Your task to perform on an android device: Clear the shopping cart on target.com. Search for usb-b on target.com, select the first entry, and add it to the cart. Image 0: 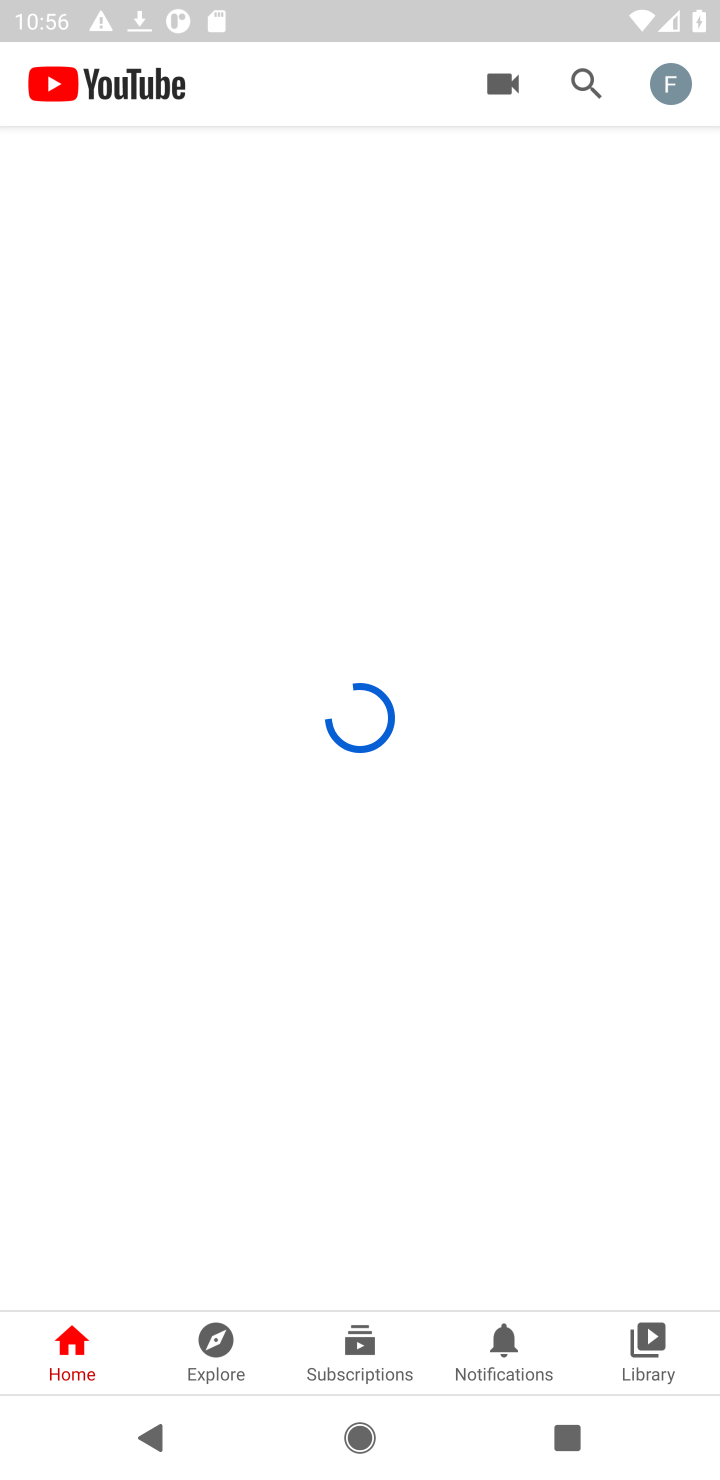
Step 0: press home button
Your task to perform on an android device: Clear the shopping cart on target.com. Search for usb-b on target.com, select the first entry, and add it to the cart. Image 1: 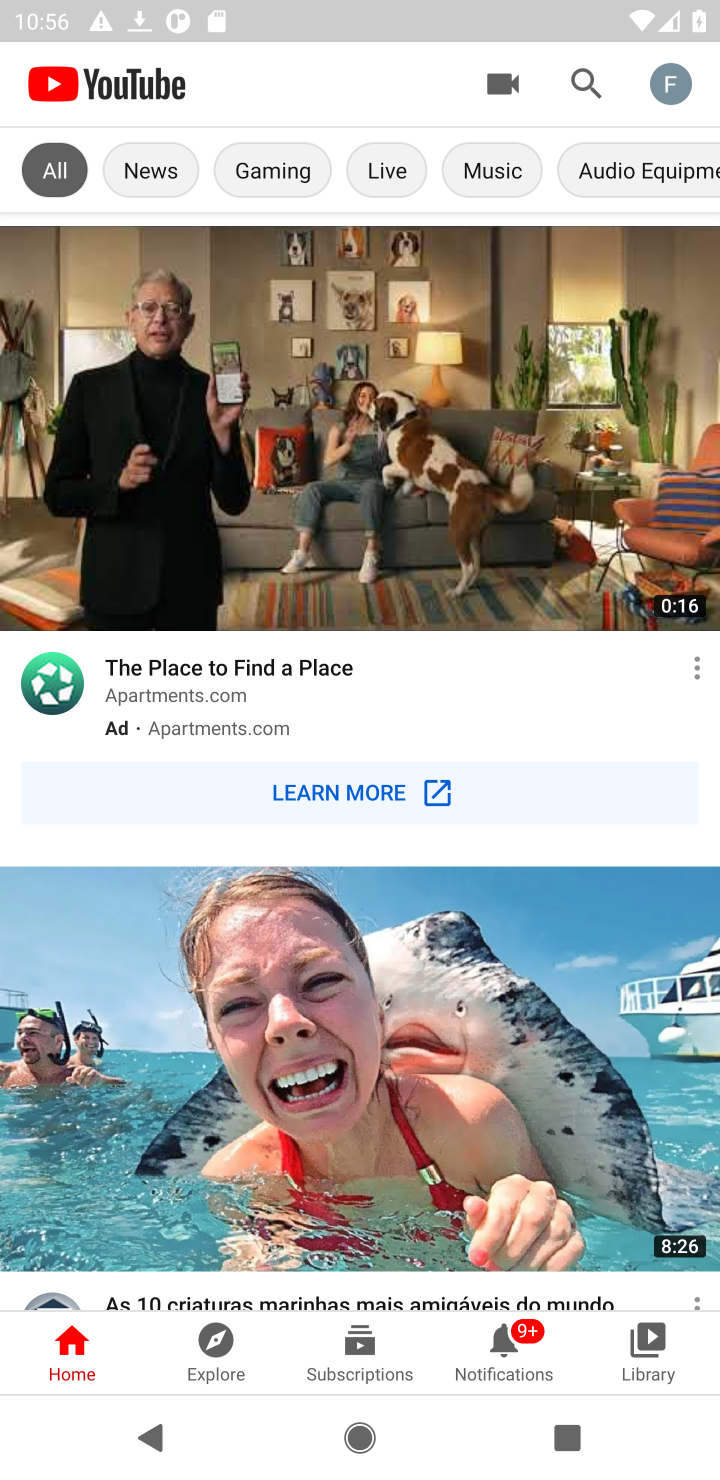
Step 1: press home button
Your task to perform on an android device: Clear the shopping cart on target.com. Search for usb-b on target.com, select the first entry, and add it to the cart. Image 2: 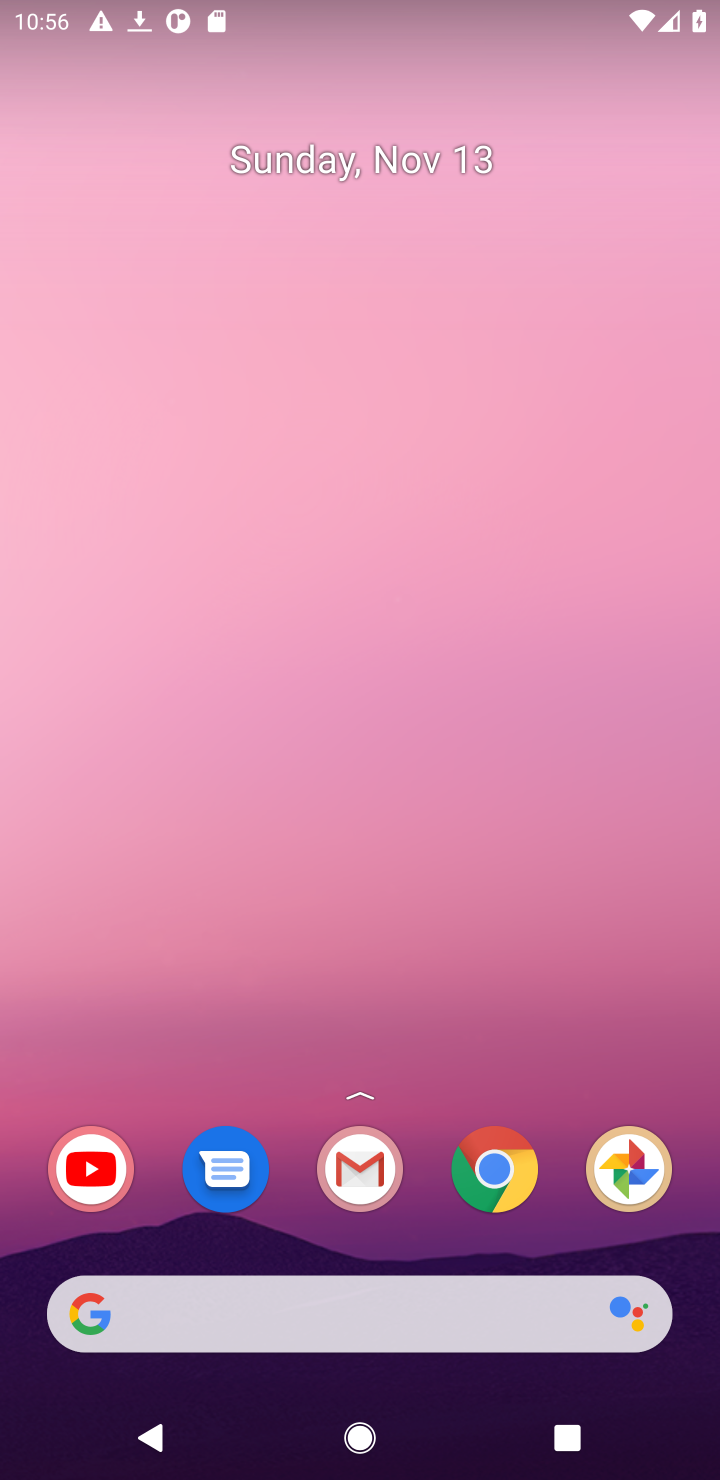
Step 2: drag from (433, 1256) to (438, 226)
Your task to perform on an android device: Clear the shopping cart on target.com. Search for usb-b on target.com, select the first entry, and add it to the cart. Image 3: 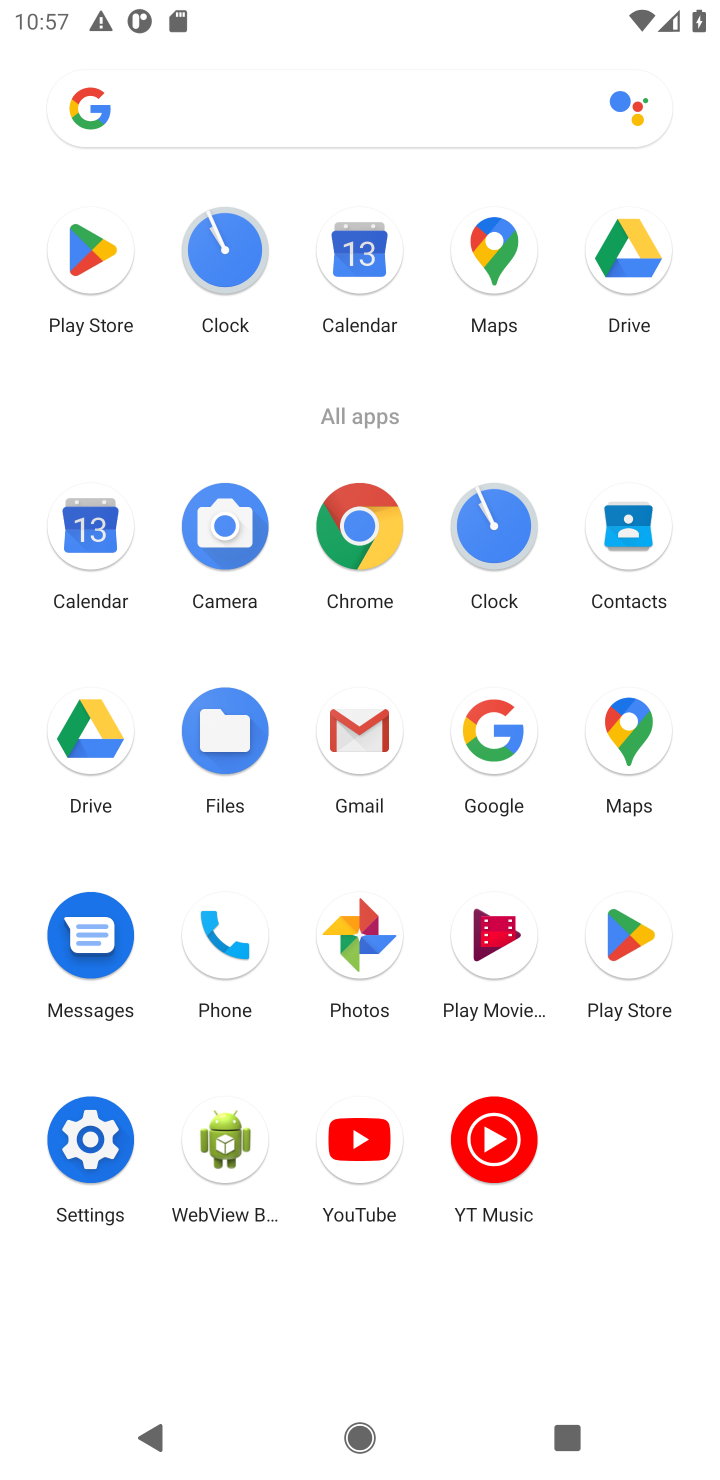
Step 3: click (366, 533)
Your task to perform on an android device: Clear the shopping cart on target.com. Search for usb-b on target.com, select the first entry, and add it to the cart. Image 4: 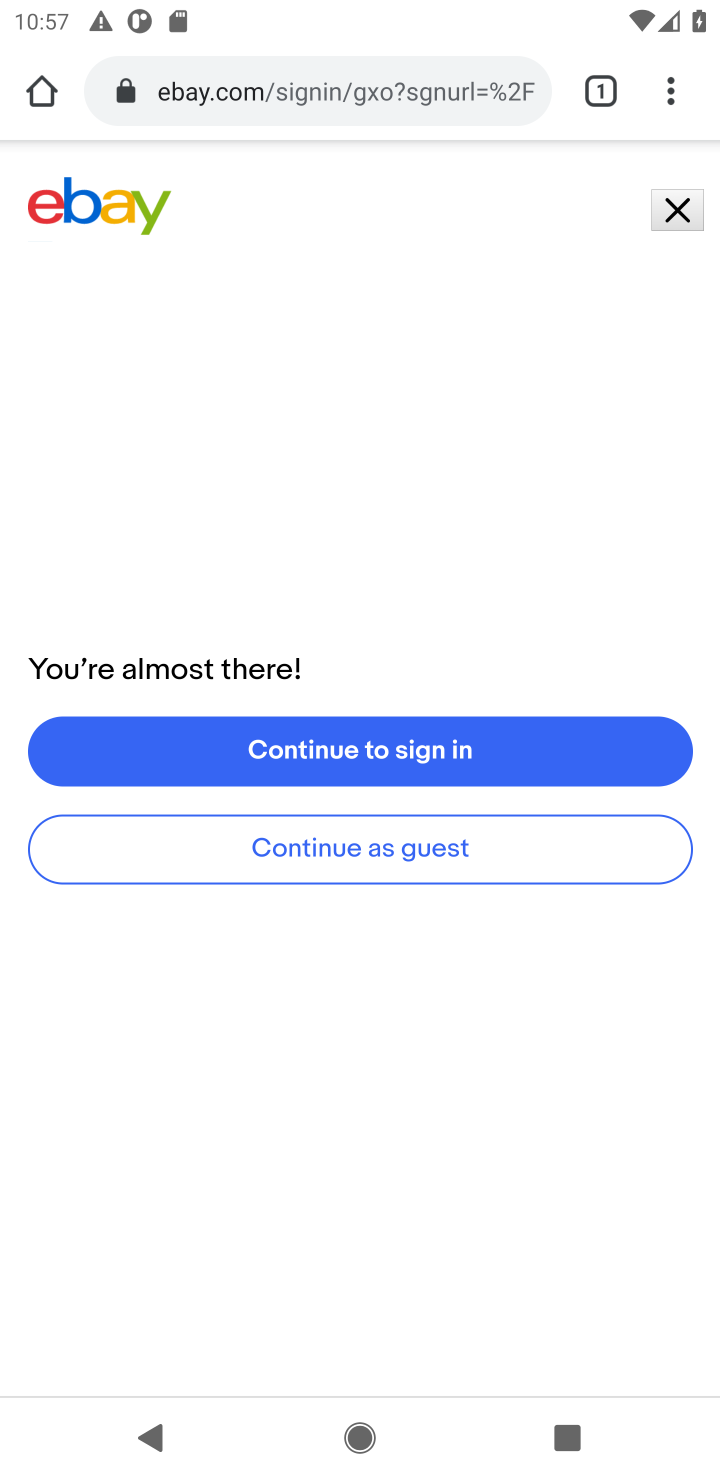
Step 4: click (320, 109)
Your task to perform on an android device: Clear the shopping cart on target.com. Search for usb-b on target.com, select the first entry, and add it to the cart. Image 5: 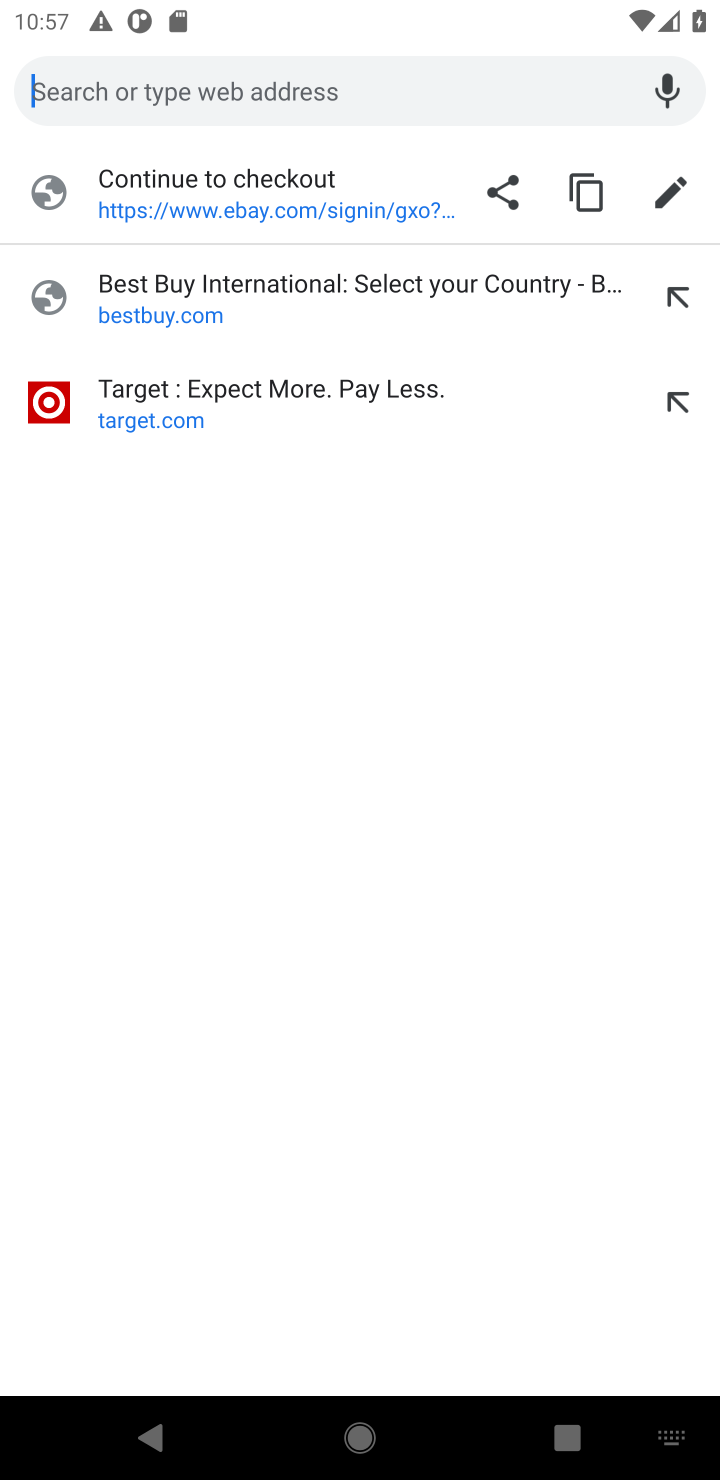
Step 5: type "target.com"
Your task to perform on an android device: Clear the shopping cart on target.com. Search for usb-b on target.com, select the first entry, and add it to the cart. Image 6: 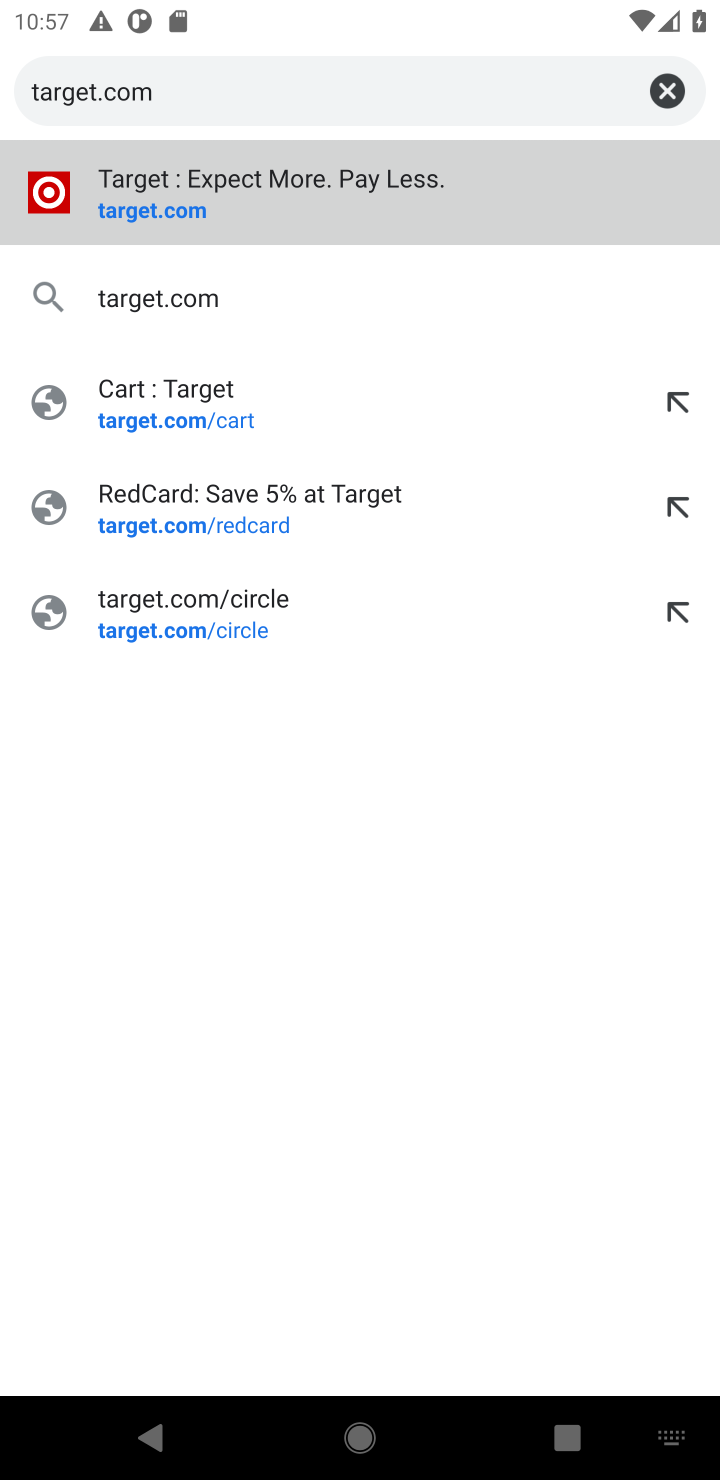
Step 6: press enter
Your task to perform on an android device: Clear the shopping cart on target.com. Search for usb-b on target.com, select the first entry, and add it to the cart. Image 7: 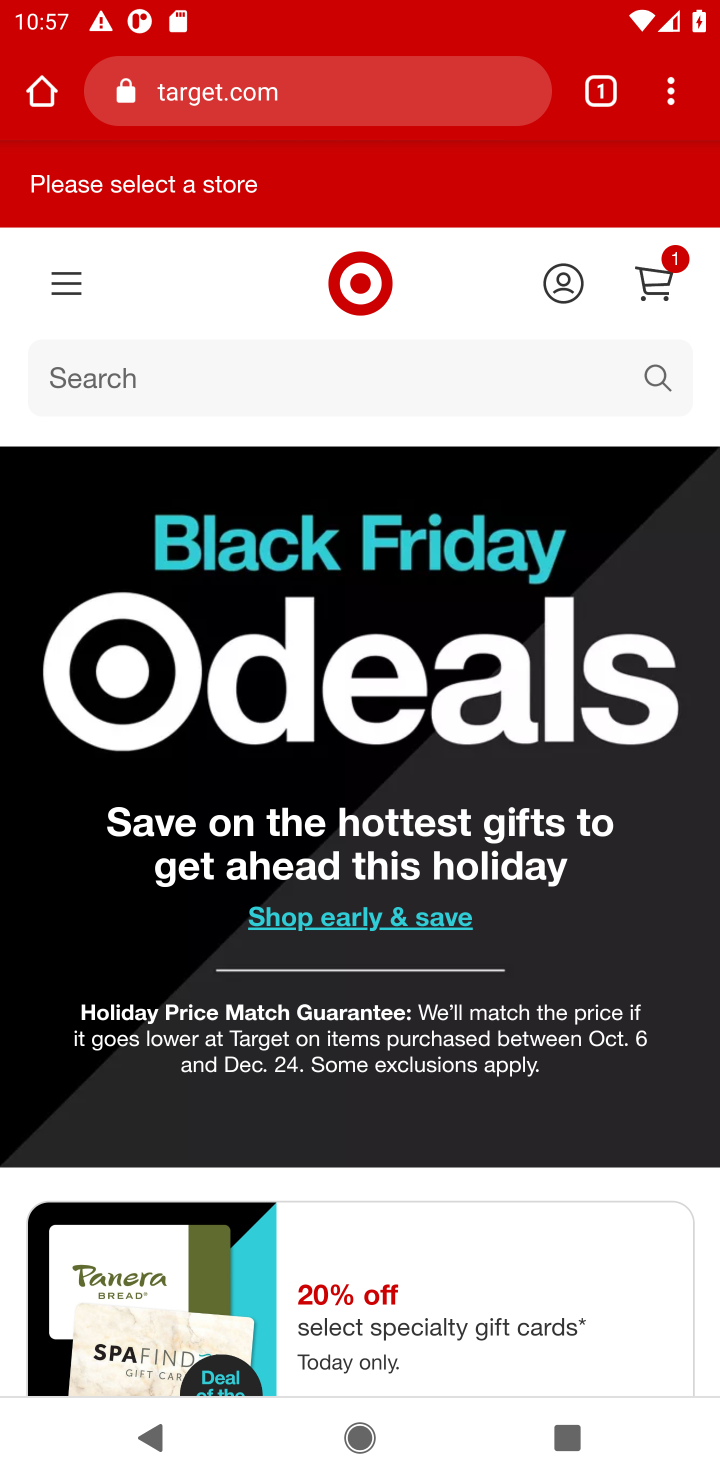
Step 7: click (643, 277)
Your task to perform on an android device: Clear the shopping cart on target.com. Search for usb-b on target.com, select the first entry, and add it to the cart. Image 8: 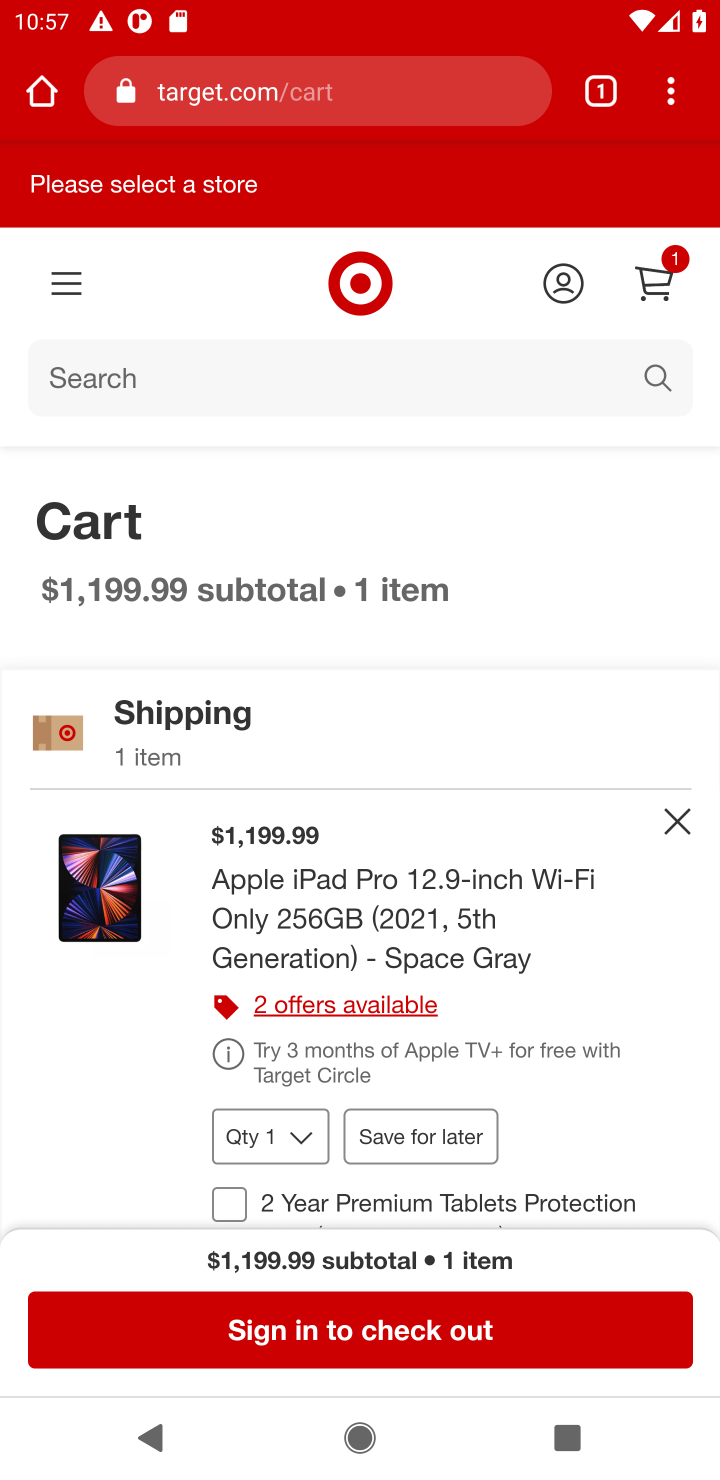
Step 8: click (678, 825)
Your task to perform on an android device: Clear the shopping cart on target.com. Search for usb-b on target.com, select the first entry, and add it to the cart. Image 9: 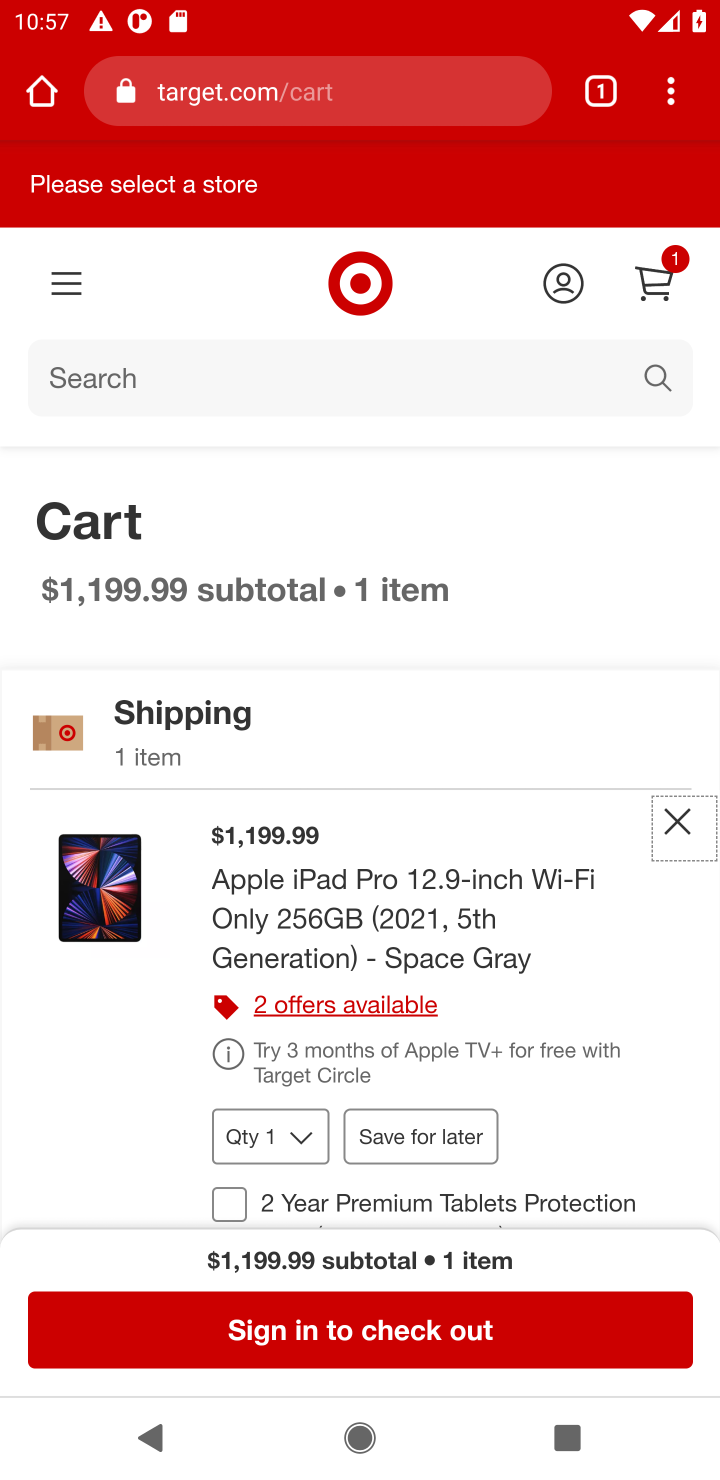
Step 9: click (678, 825)
Your task to perform on an android device: Clear the shopping cart on target.com. Search for usb-b on target.com, select the first entry, and add it to the cart. Image 10: 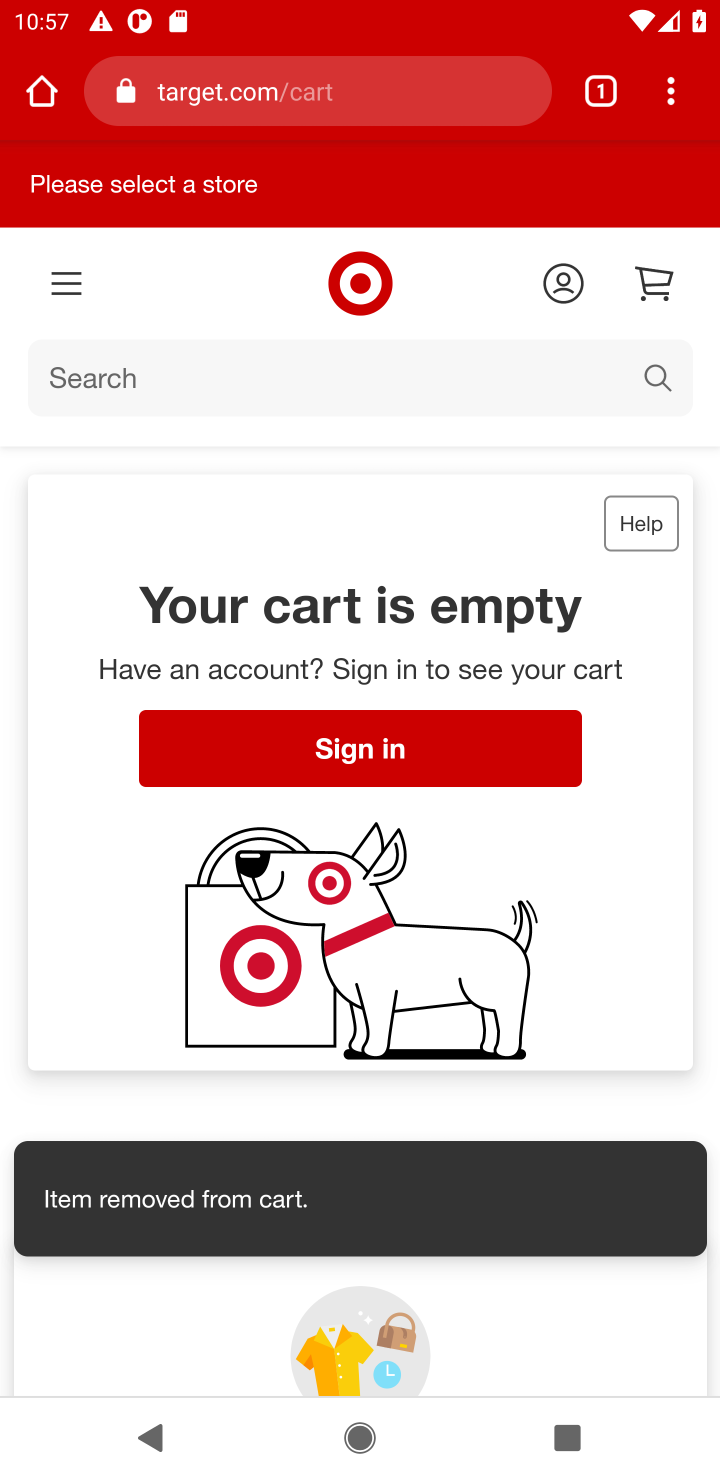
Step 10: click (455, 381)
Your task to perform on an android device: Clear the shopping cart on target.com. Search for usb-b on target.com, select the first entry, and add it to the cart. Image 11: 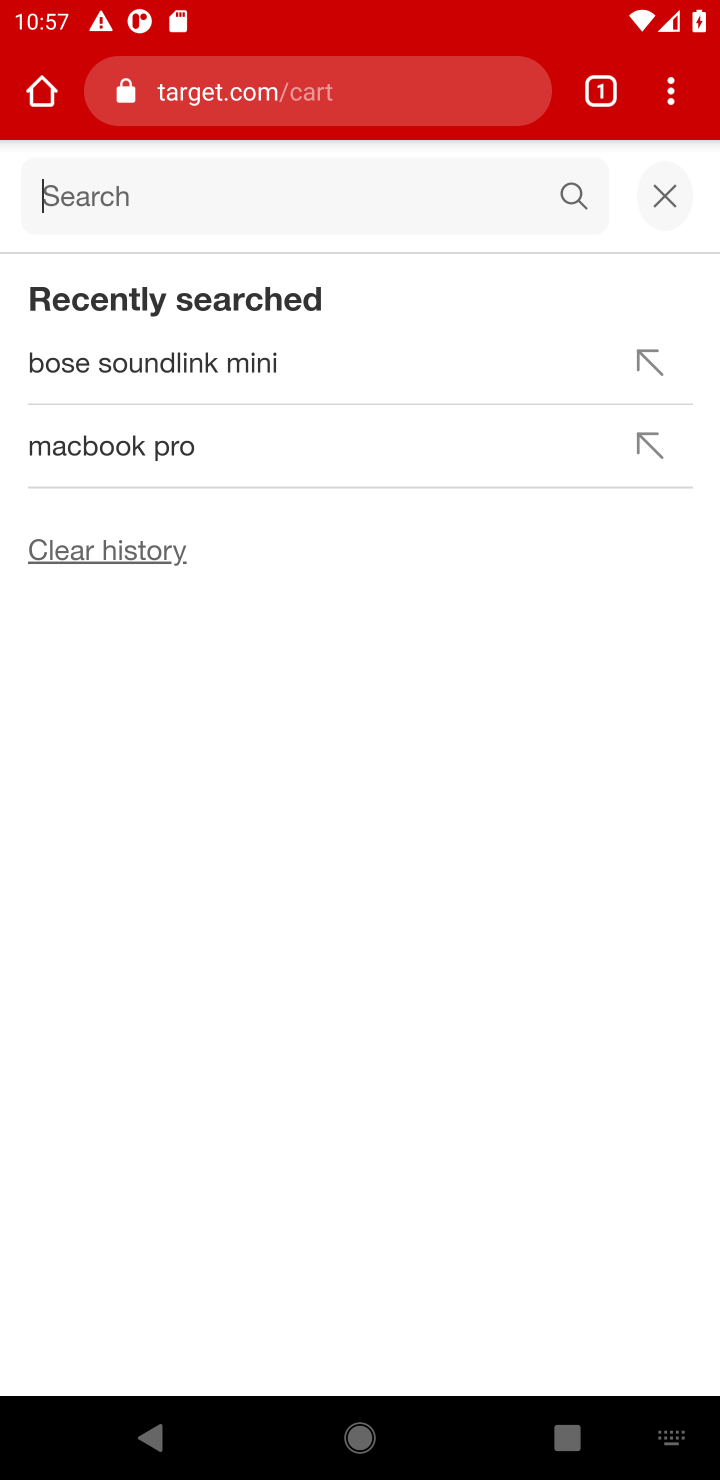
Step 11: type "usb-b"
Your task to perform on an android device: Clear the shopping cart on target.com. Search for usb-b on target.com, select the first entry, and add it to the cart. Image 12: 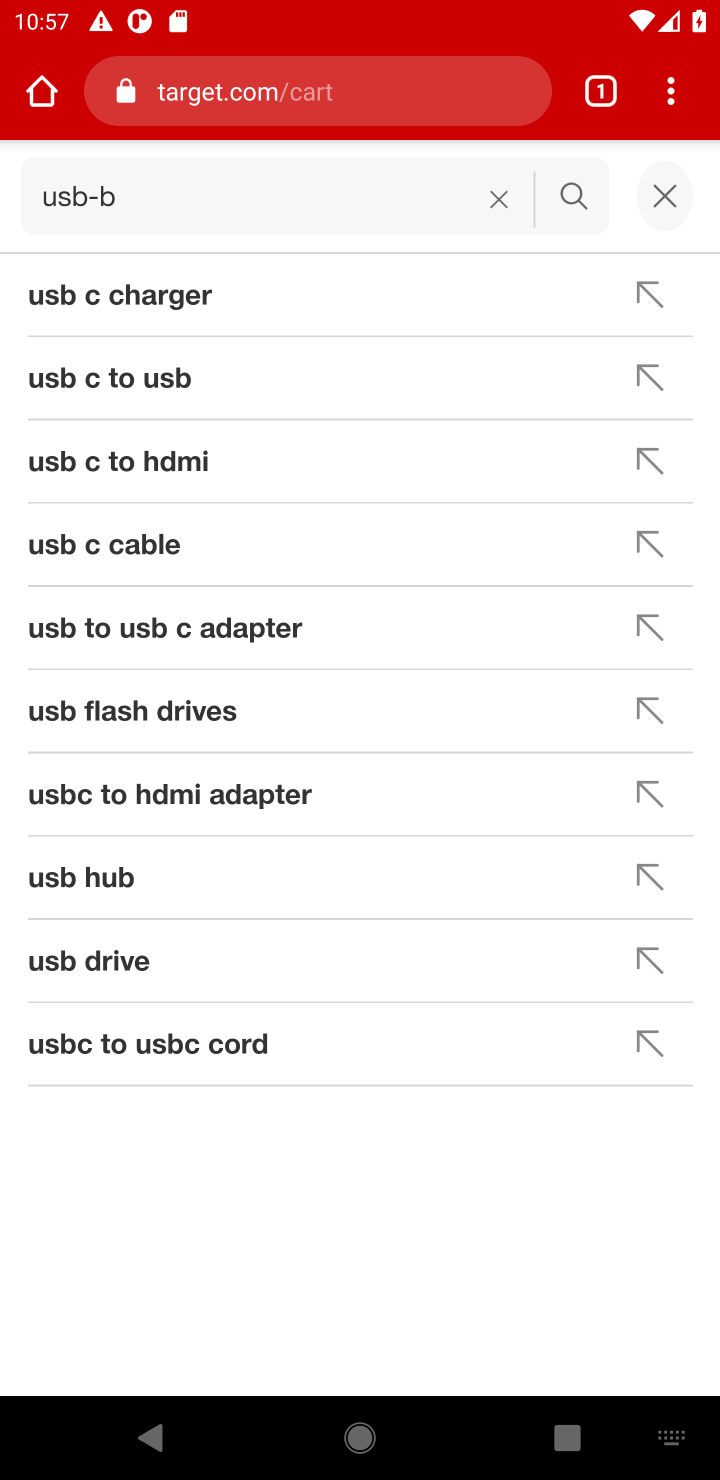
Step 12: press enter
Your task to perform on an android device: Clear the shopping cart on target.com. Search for usb-b on target.com, select the first entry, and add it to the cart. Image 13: 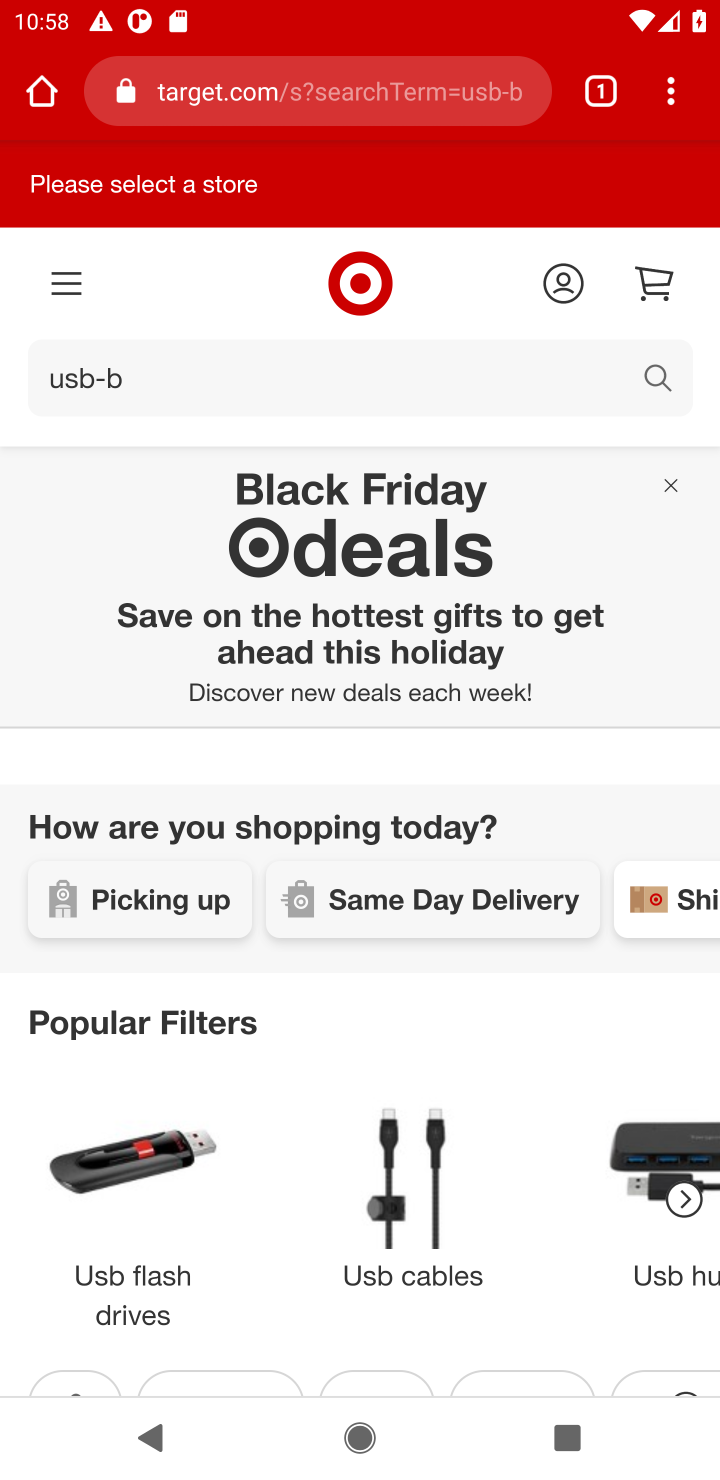
Step 13: drag from (428, 1225) to (496, 277)
Your task to perform on an android device: Clear the shopping cart on target.com. Search for usb-b on target.com, select the first entry, and add it to the cart. Image 14: 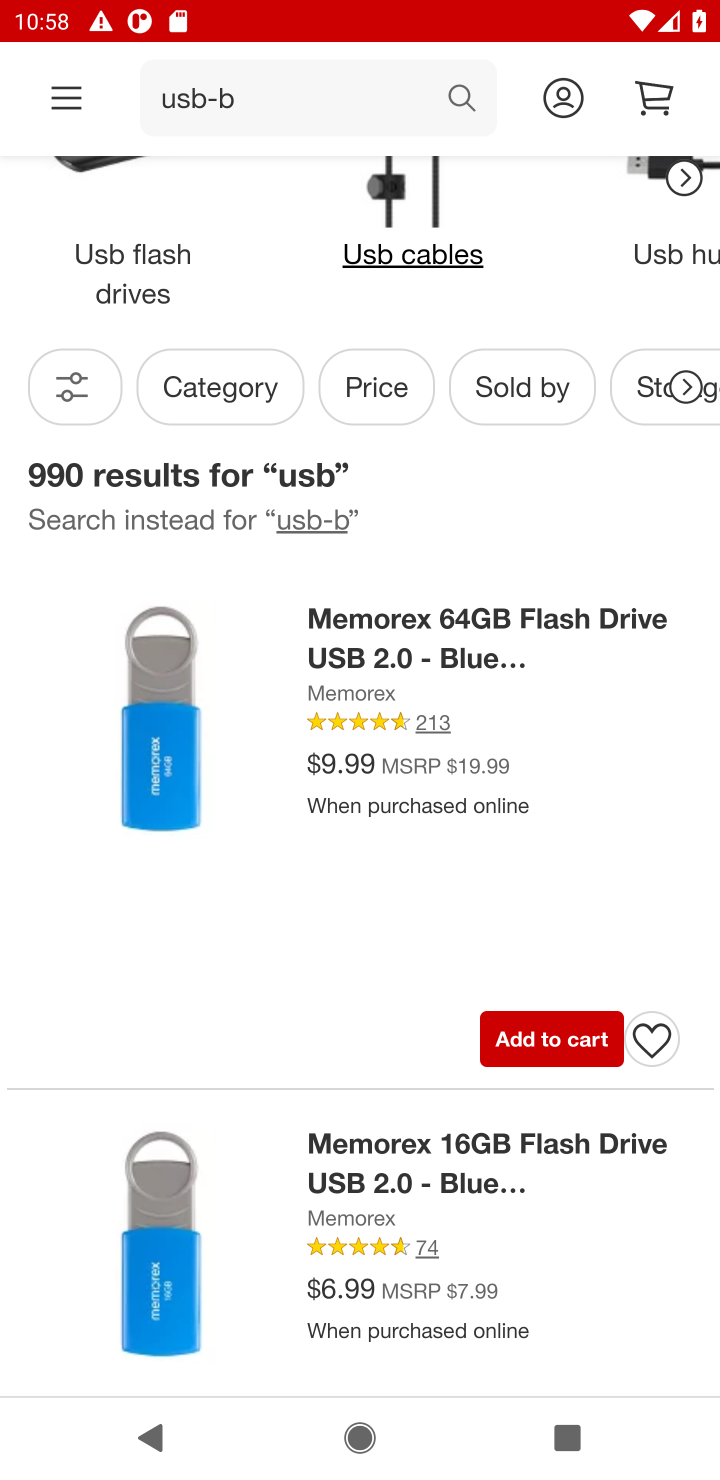
Step 14: drag from (337, 1069) to (530, 236)
Your task to perform on an android device: Clear the shopping cart on target.com. Search for usb-b on target.com, select the first entry, and add it to the cart. Image 15: 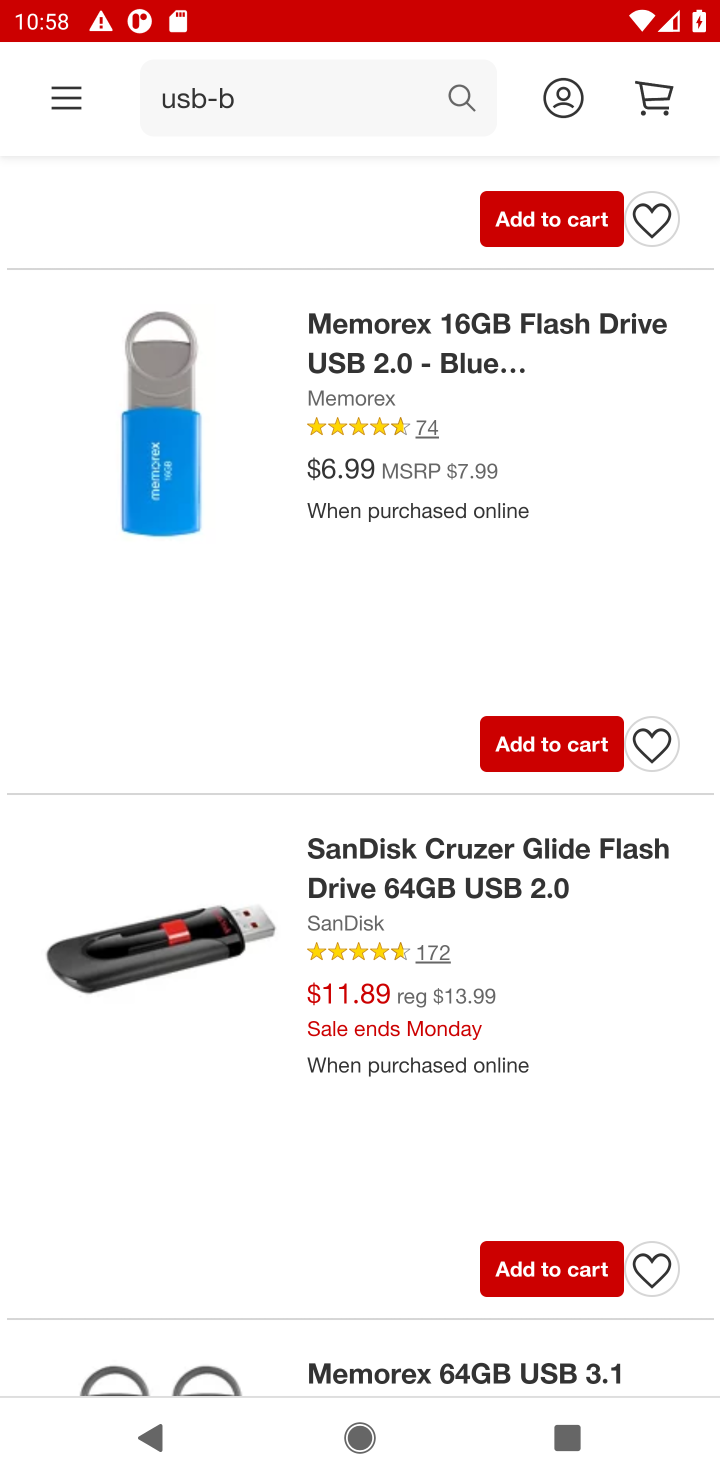
Step 15: drag from (486, 1075) to (129, 1345)
Your task to perform on an android device: Clear the shopping cart on target.com. Search for usb-b on target.com, select the first entry, and add it to the cart. Image 16: 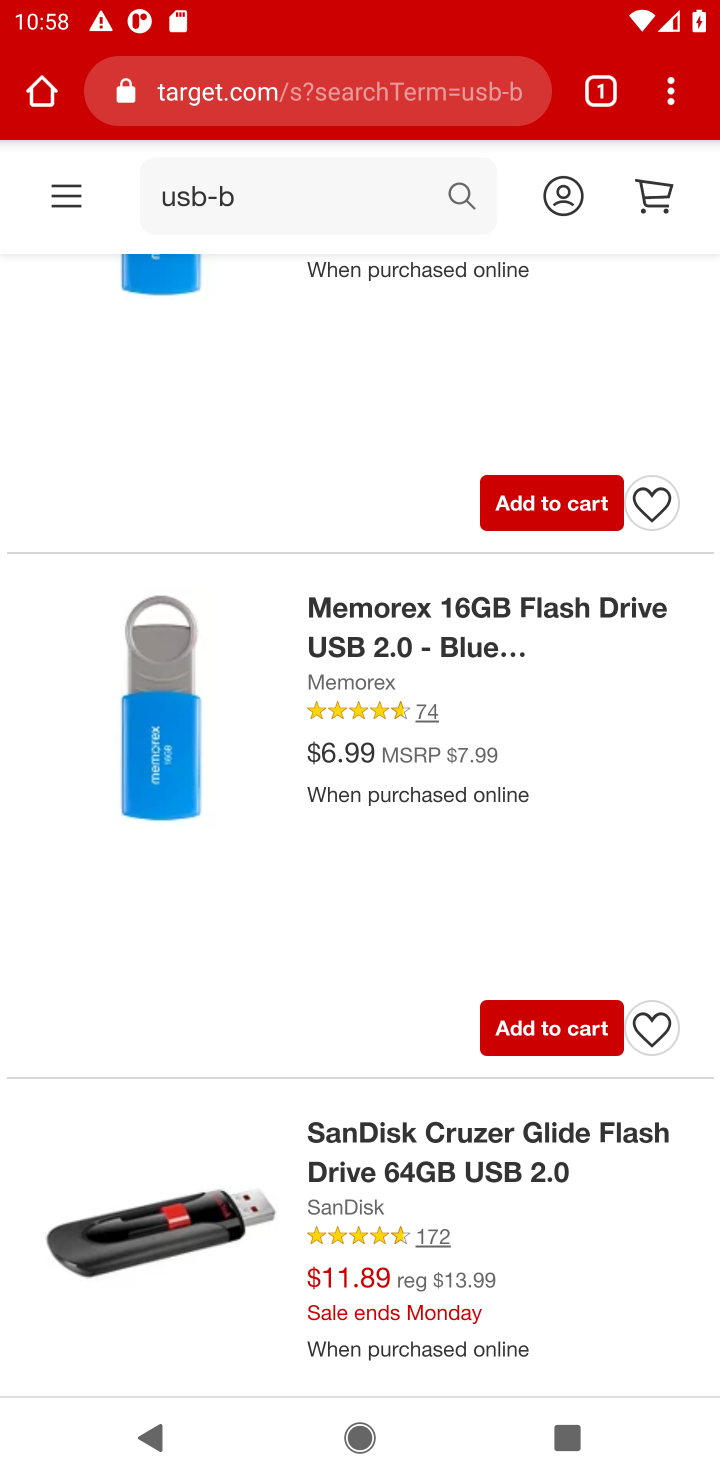
Step 16: drag from (324, 479) to (165, 1124)
Your task to perform on an android device: Clear the shopping cart on target.com. Search for usb-b on target.com, select the first entry, and add it to the cart. Image 17: 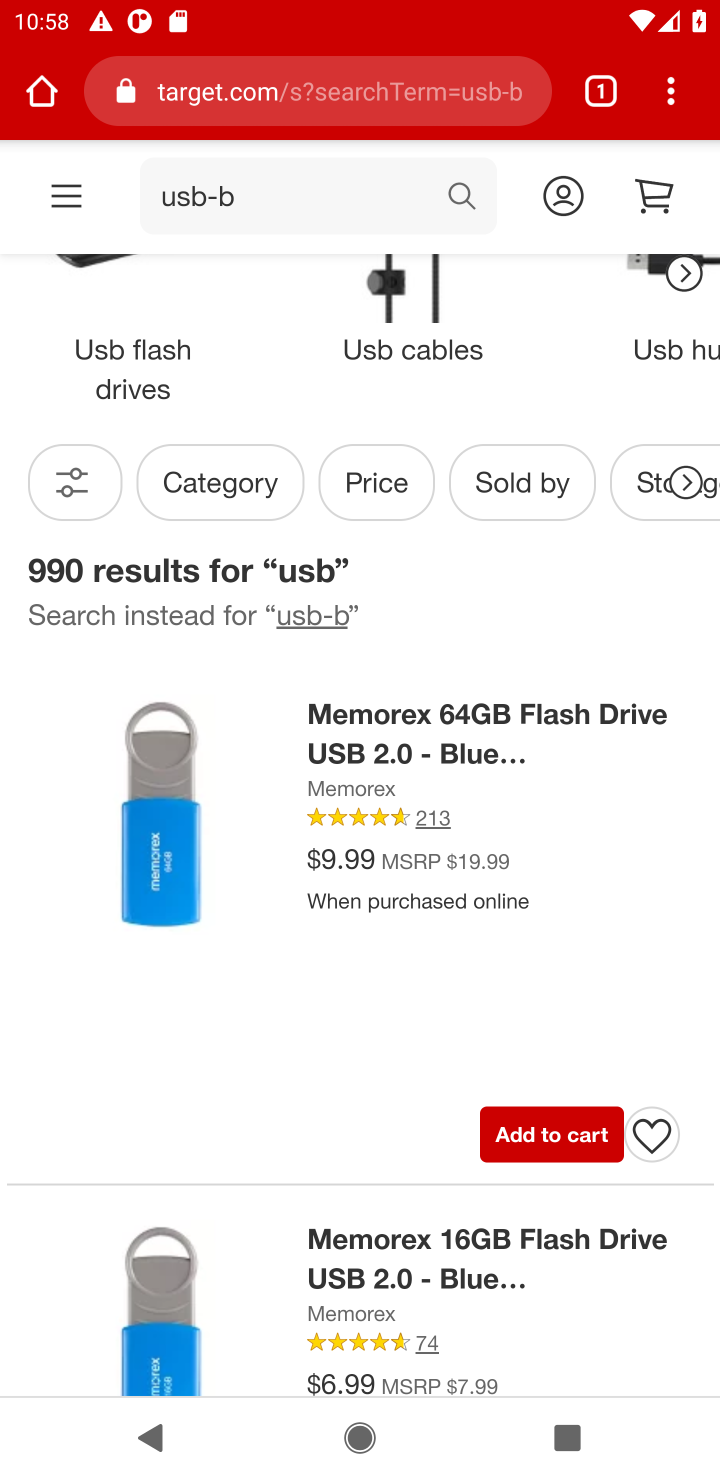
Step 17: click (423, 752)
Your task to perform on an android device: Clear the shopping cart on target.com. Search for usb-b on target.com, select the first entry, and add it to the cart. Image 18: 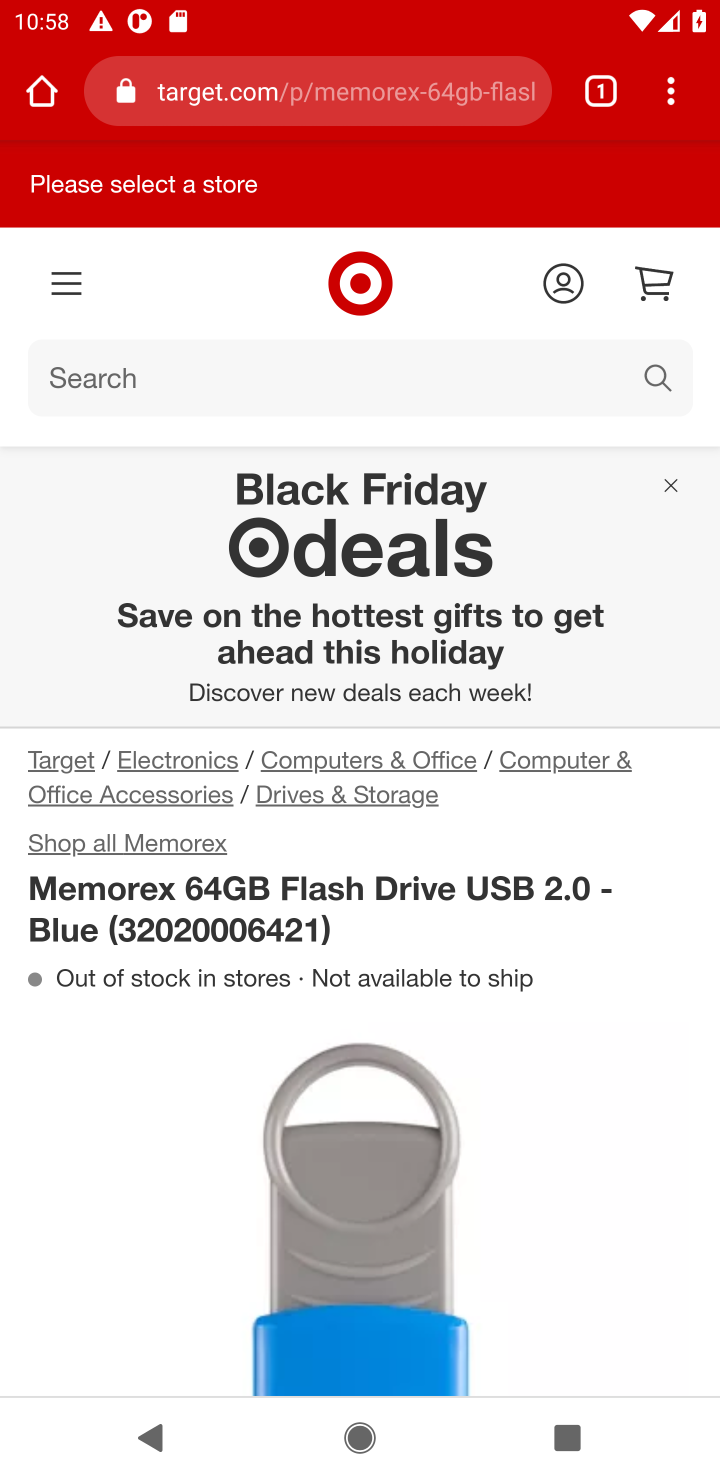
Step 18: task complete